Your task to perform on an android device: open a bookmark in the chrome app Image 0: 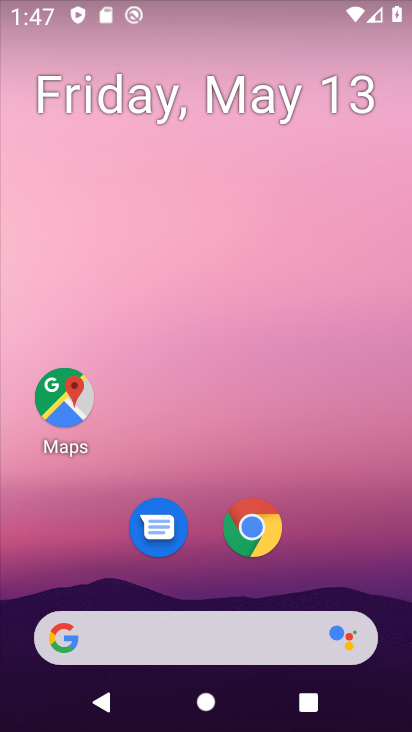
Step 0: click (245, 521)
Your task to perform on an android device: open a bookmark in the chrome app Image 1: 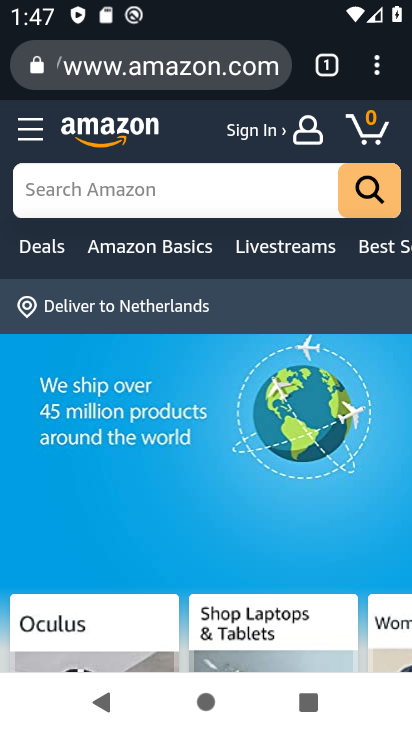
Step 1: click (393, 76)
Your task to perform on an android device: open a bookmark in the chrome app Image 2: 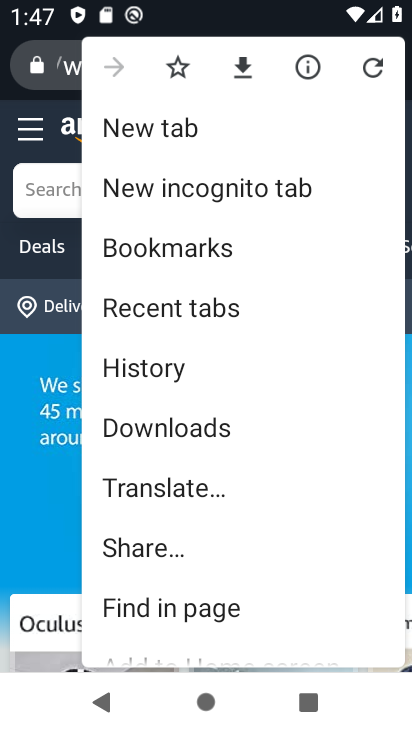
Step 2: click (204, 237)
Your task to perform on an android device: open a bookmark in the chrome app Image 3: 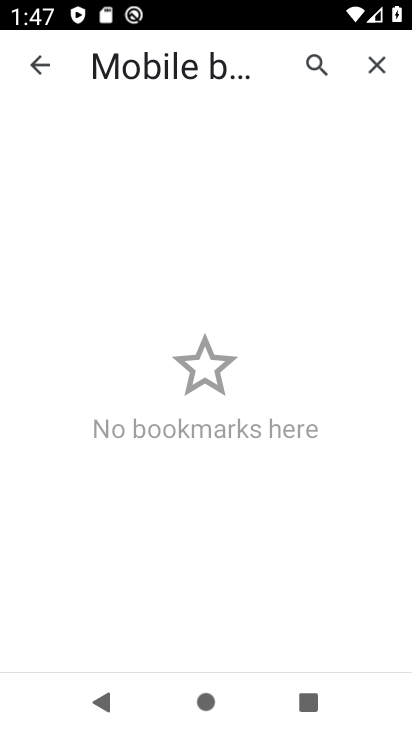
Step 3: task complete